Your task to perform on an android device: toggle show notifications on the lock screen Image 0: 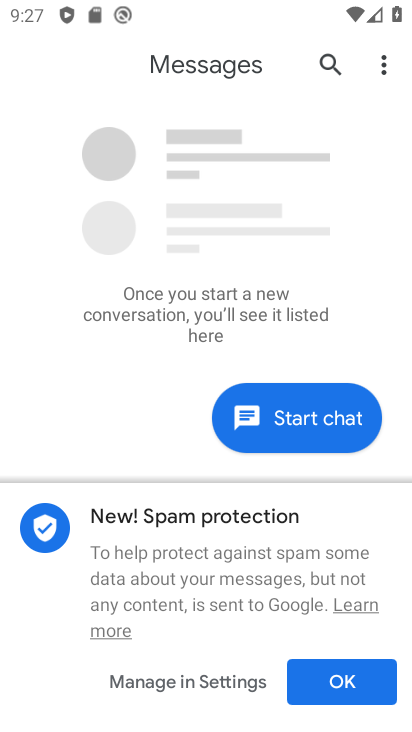
Step 0: press home button
Your task to perform on an android device: toggle show notifications on the lock screen Image 1: 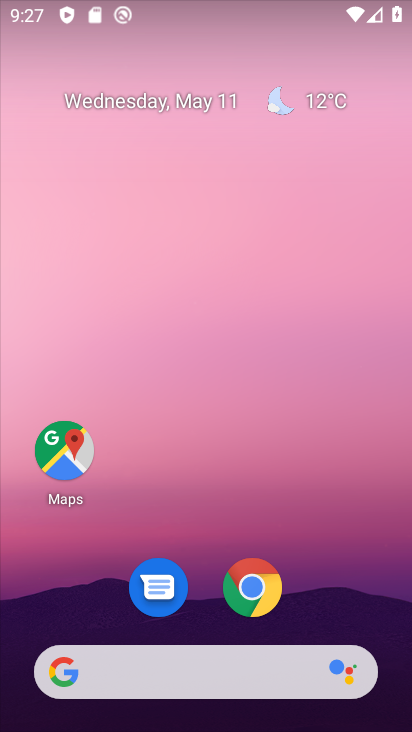
Step 1: drag from (397, 248) to (377, 13)
Your task to perform on an android device: toggle show notifications on the lock screen Image 2: 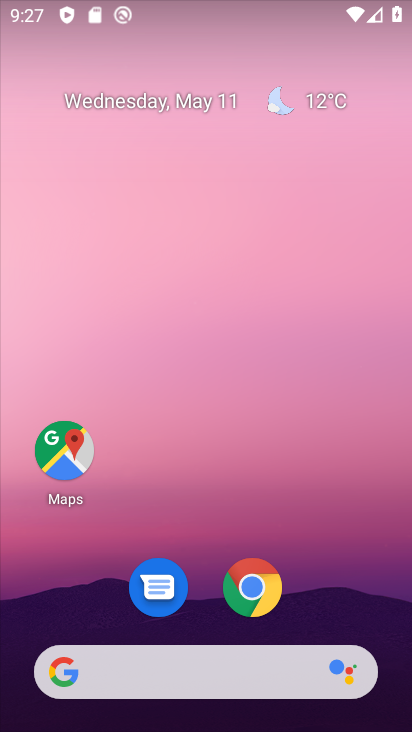
Step 2: drag from (360, 612) to (272, 31)
Your task to perform on an android device: toggle show notifications on the lock screen Image 3: 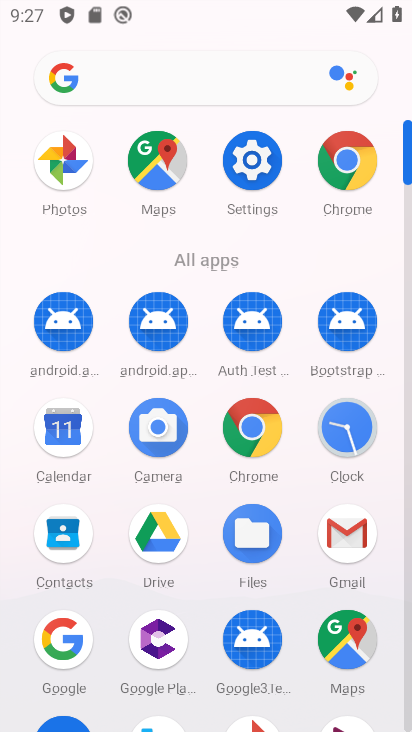
Step 3: click (240, 163)
Your task to perform on an android device: toggle show notifications on the lock screen Image 4: 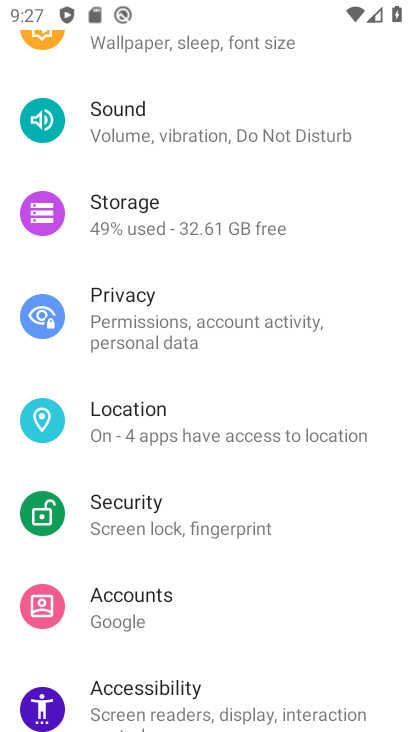
Step 4: drag from (238, 176) to (242, 309)
Your task to perform on an android device: toggle show notifications on the lock screen Image 5: 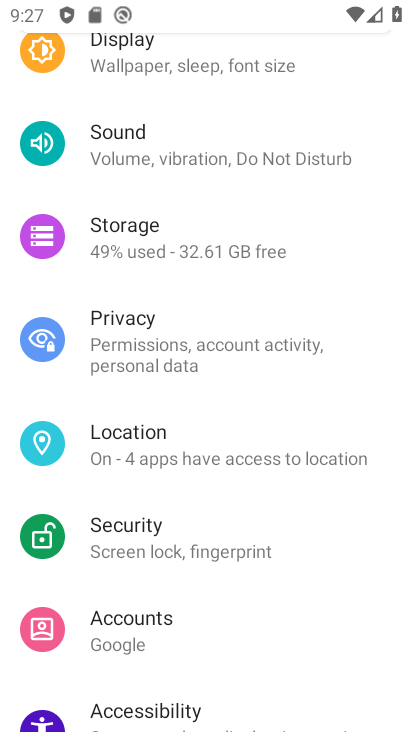
Step 5: drag from (230, 259) to (244, 399)
Your task to perform on an android device: toggle show notifications on the lock screen Image 6: 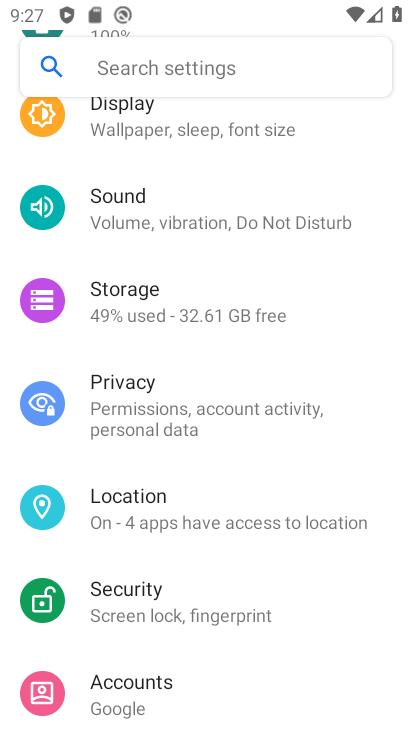
Step 6: drag from (260, 183) to (268, 599)
Your task to perform on an android device: toggle show notifications on the lock screen Image 7: 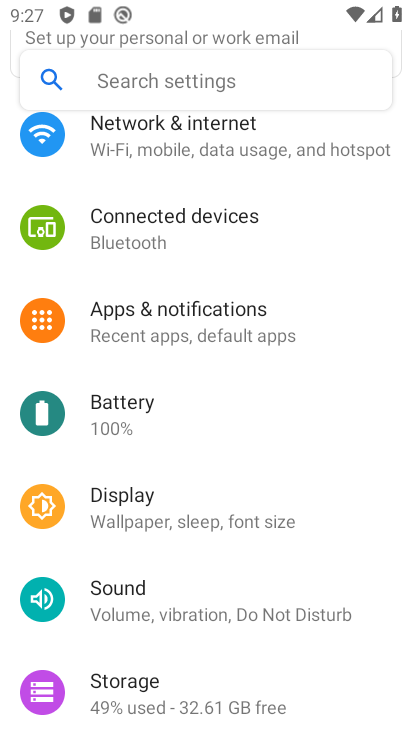
Step 7: drag from (258, 282) to (260, 454)
Your task to perform on an android device: toggle show notifications on the lock screen Image 8: 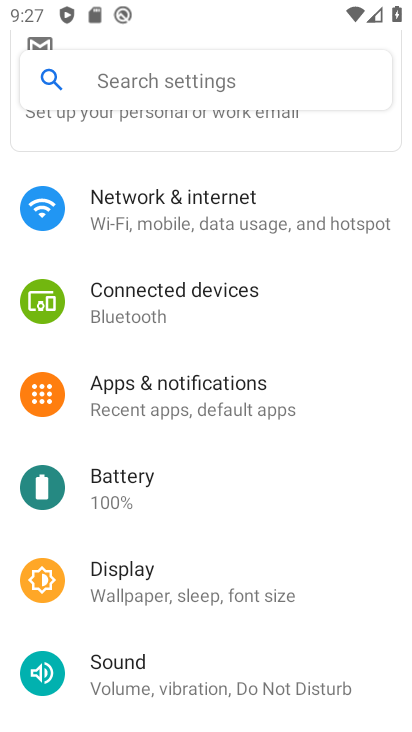
Step 8: click (216, 398)
Your task to perform on an android device: toggle show notifications on the lock screen Image 9: 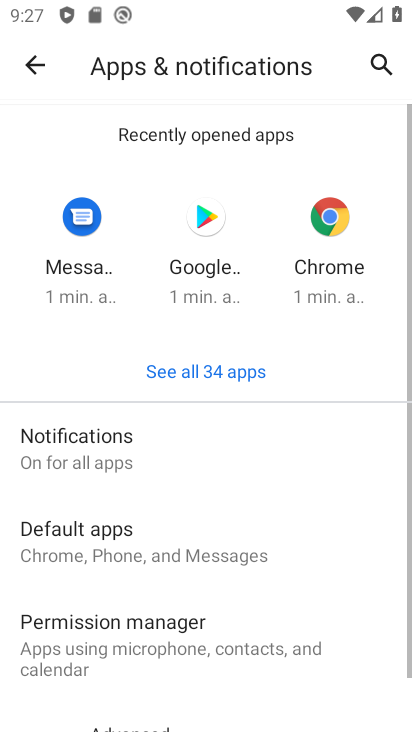
Step 9: click (67, 461)
Your task to perform on an android device: toggle show notifications on the lock screen Image 10: 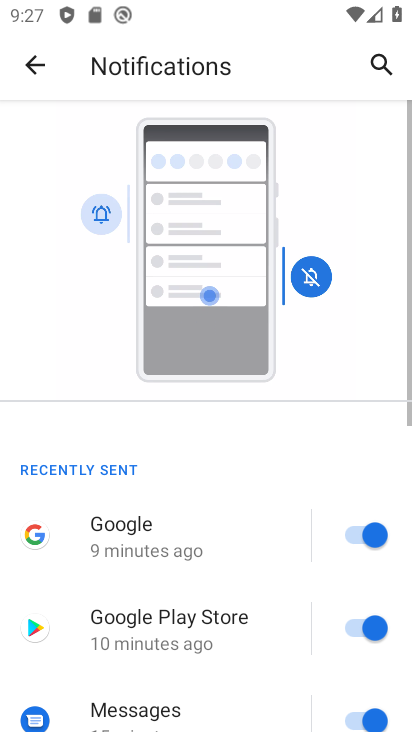
Step 10: drag from (88, 603) to (123, 94)
Your task to perform on an android device: toggle show notifications on the lock screen Image 11: 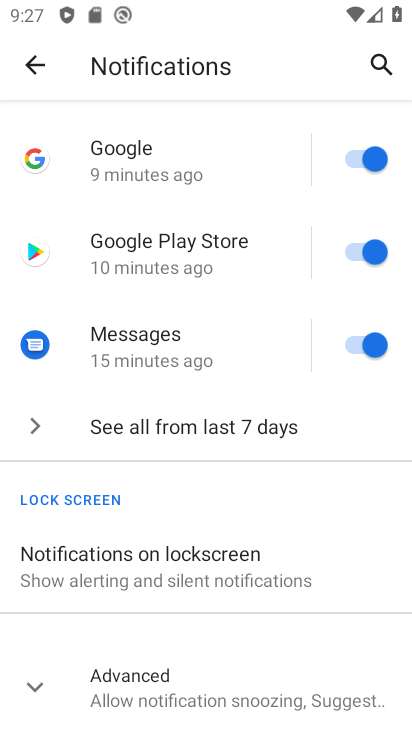
Step 11: click (90, 559)
Your task to perform on an android device: toggle show notifications on the lock screen Image 12: 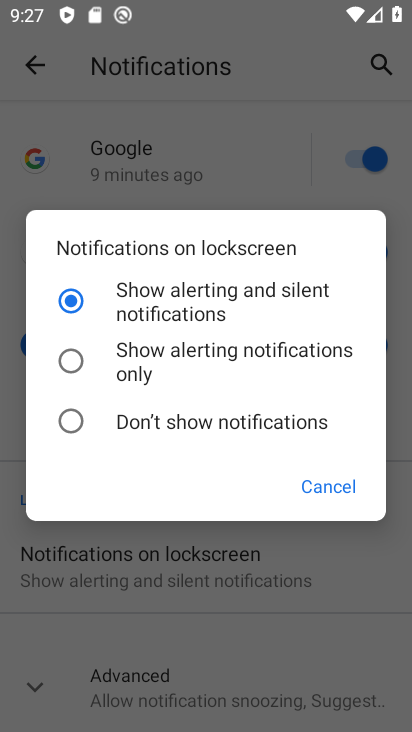
Step 12: click (75, 421)
Your task to perform on an android device: toggle show notifications on the lock screen Image 13: 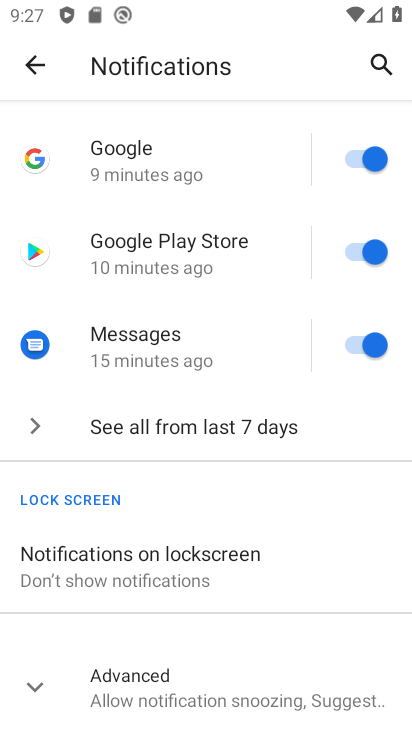
Step 13: task complete